Your task to perform on an android device: Open privacy settings Image 0: 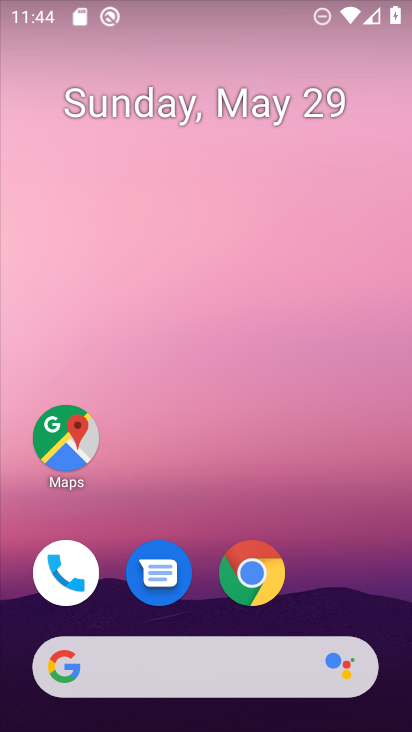
Step 0: drag from (323, 532) to (308, 187)
Your task to perform on an android device: Open privacy settings Image 1: 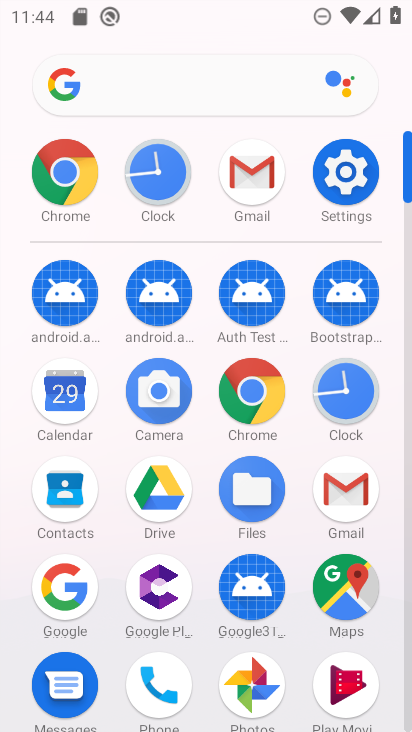
Step 1: click (340, 195)
Your task to perform on an android device: Open privacy settings Image 2: 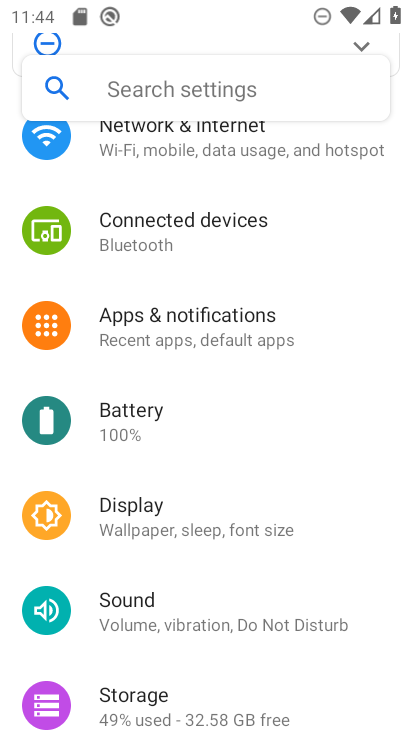
Step 2: drag from (323, 191) to (330, 123)
Your task to perform on an android device: Open privacy settings Image 3: 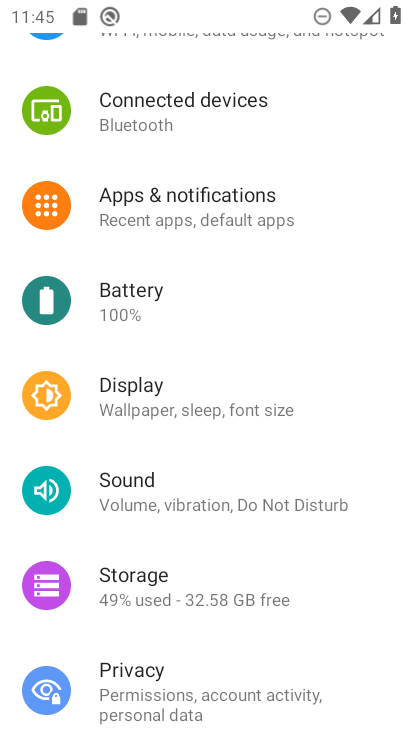
Step 3: click (190, 703)
Your task to perform on an android device: Open privacy settings Image 4: 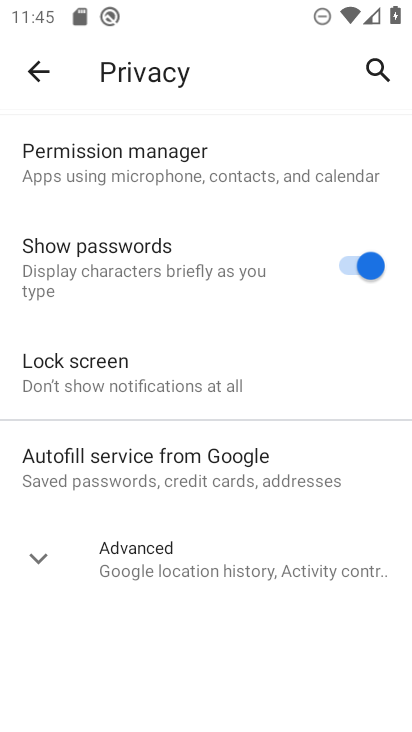
Step 4: task complete